Your task to perform on an android device: turn vacation reply on in the gmail app Image 0: 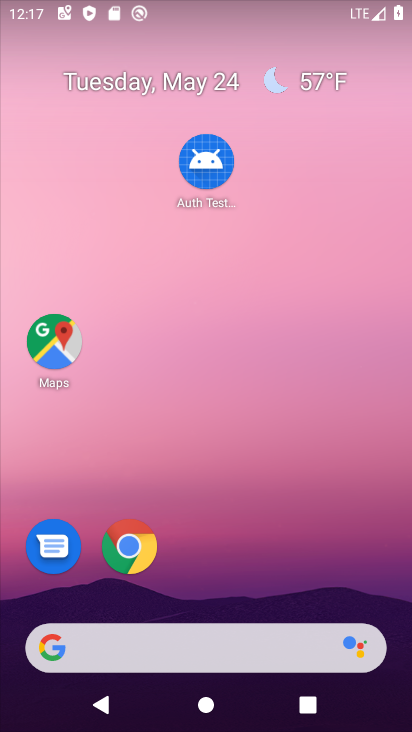
Step 0: drag from (228, 358) to (262, 187)
Your task to perform on an android device: turn vacation reply on in the gmail app Image 1: 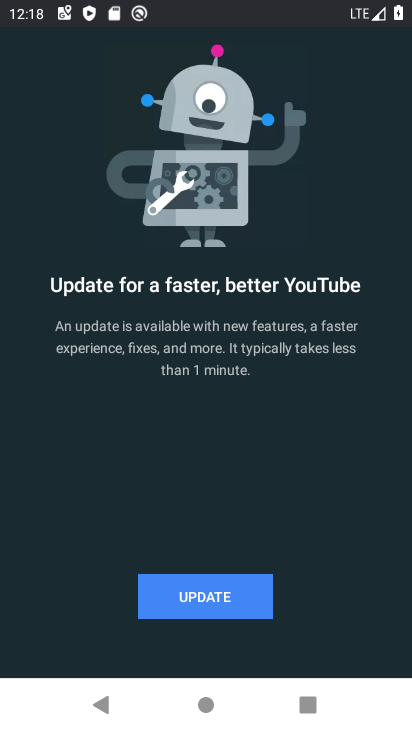
Step 1: press home button
Your task to perform on an android device: turn vacation reply on in the gmail app Image 2: 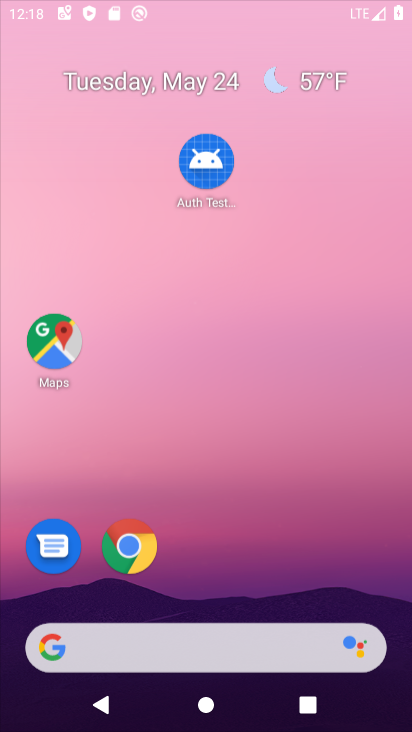
Step 2: drag from (218, 631) to (281, 45)
Your task to perform on an android device: turn vacation reply on in the gmail app Image 3: 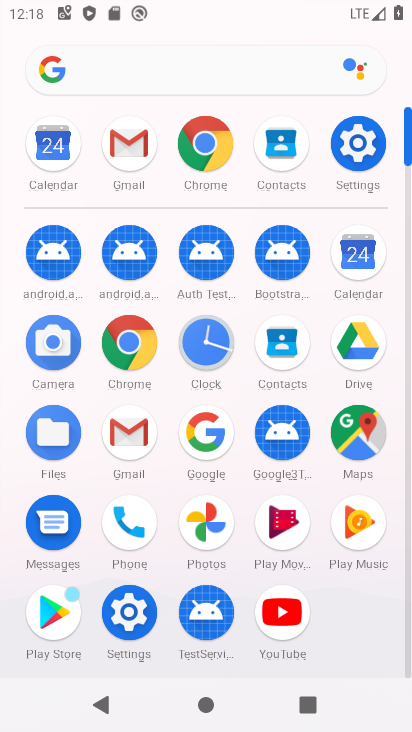
Step 3: click (124, 436)
Your task to perform on an android device: turn vacation reply on in the gmail app Image 4: 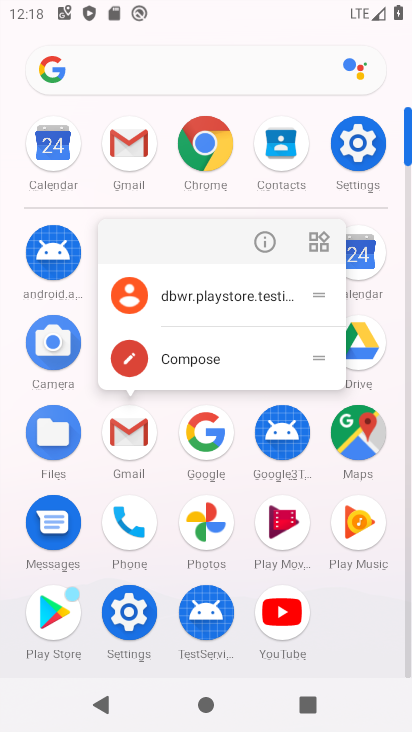
Step 4: click (275, 241)
Your task to perform on an android device: turn vacation reply on in the gmail app Image 5: 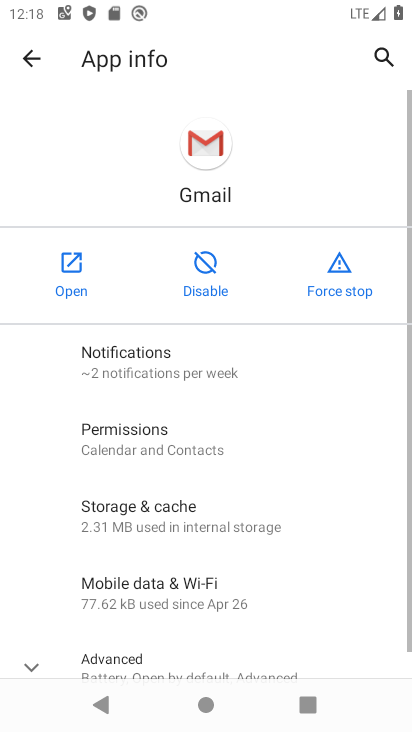
Step 5: click (68, 276)
Your task to perform on an android device: turn vacation reply on in the gmail app Image 6: 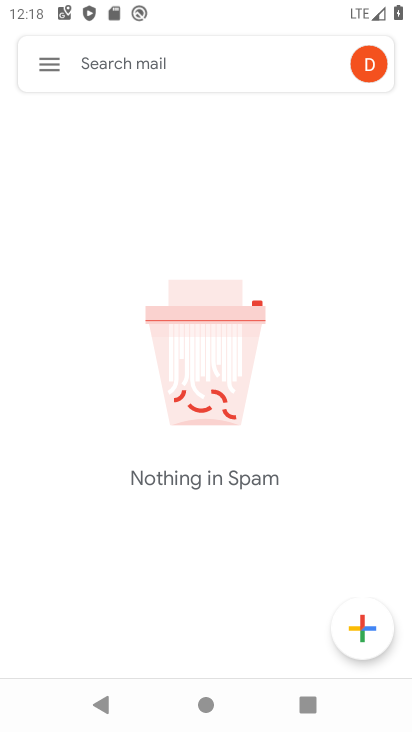
Step 6: click (57, 73)
Your task to perform on an android device: turn vacation reply on in the gmail app Image 7: 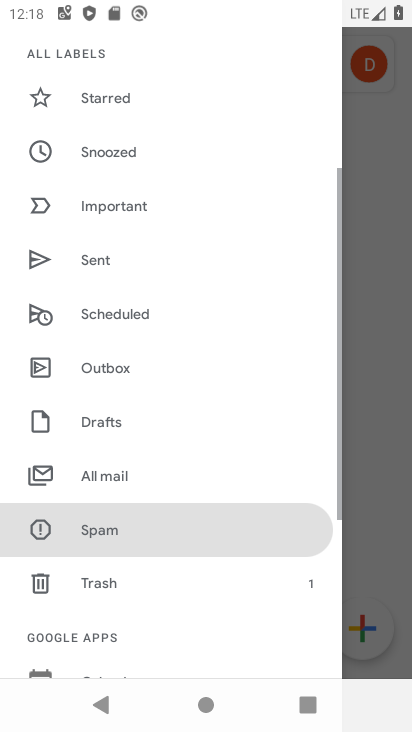
Step 7: drag from (164, 569) to (244, 73)
Your task to perform on an android device: turn vacation reply on in the gmail app Image 8: 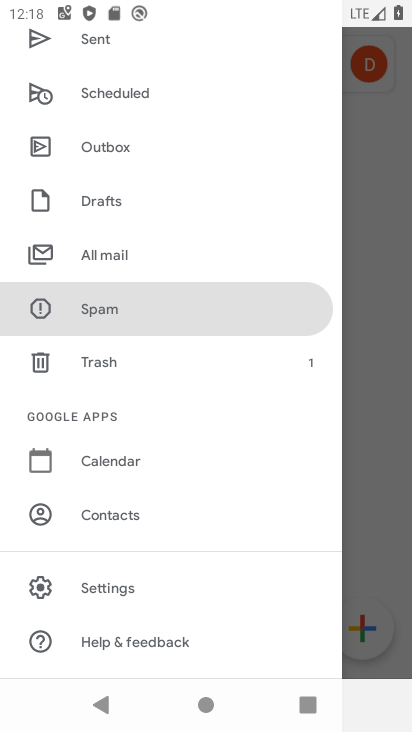
Step 8: click (144, 593)
Your task to perform on an android device: turn vacation reply on in the gmail app Image 9: 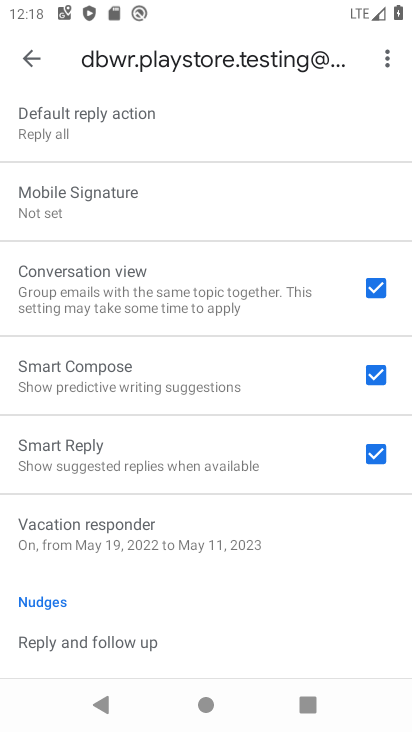
Step 9: drag from (134, 236) to (232, 647)
Your task to perform on an android device: turn vacation reply on in the gmail app Image 10: 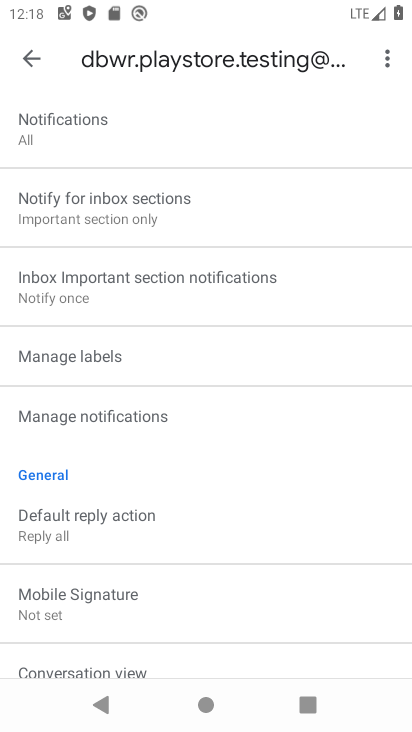
Step 10: drag from (186, 529) to (255, 59)
Your task to perform on an android device: turn vacation reply on in the gmail app Image 11: 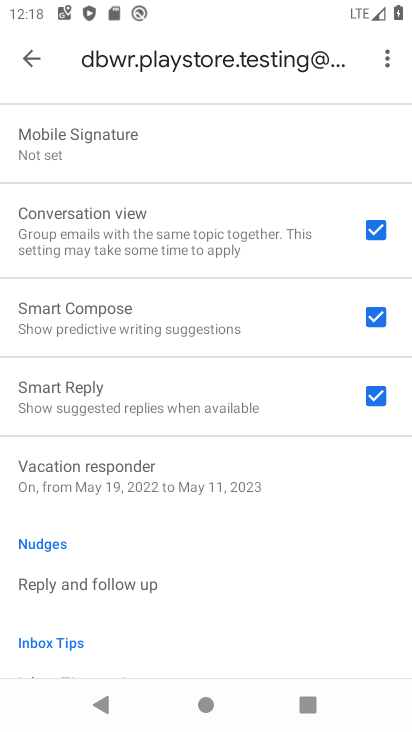
Step 11: click (138, 475)
Your task to perform on an android device: turn vacation reply on in the gmail app Image 12: 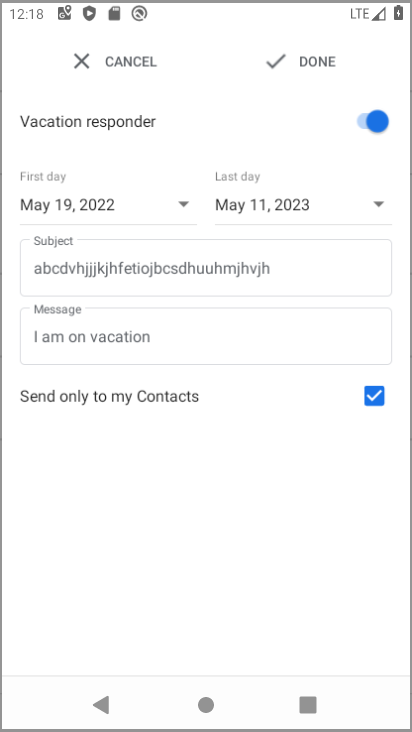
Step 12: drag from (162, 473) to (259, 84)
Your task to perform on an android device: turn vacation reply on in the gmail app Image 13: 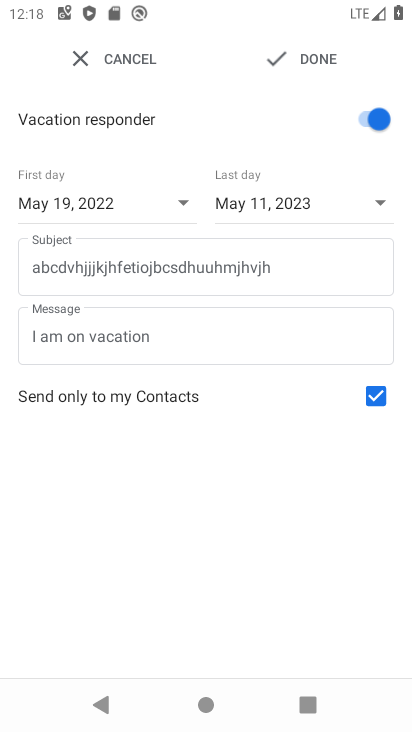
Step 13: click (287, 53)
Your task to perform on an android device: turn vacation reply on in the gmail app Image 14: 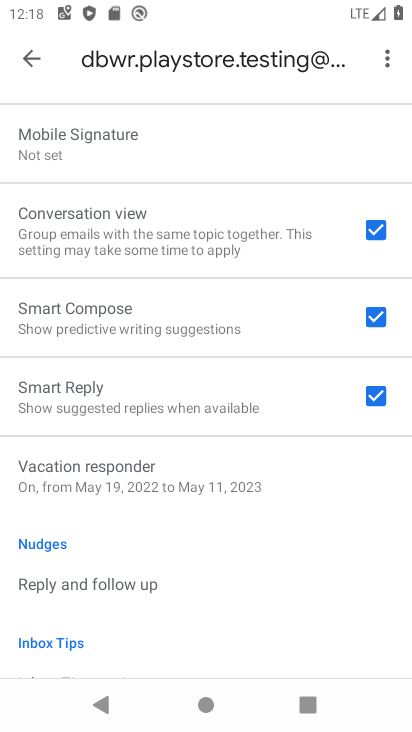
Step 14: task complete